Your task to perform on an android device: install app "Spotify: Music and Podcasts" Image 0: 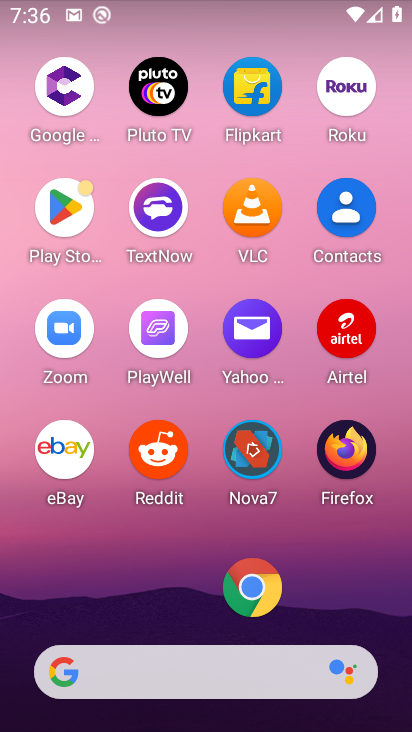
Step 0: click (84, 239)
Your task to perform on an android device: install app "Spotify: Music and Podcasts" Image 1: 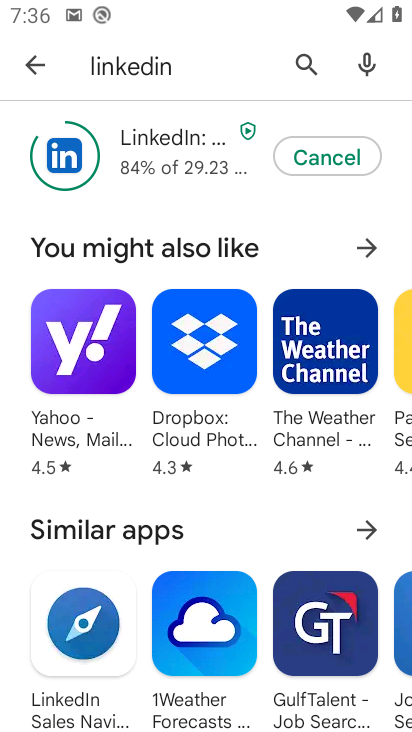
Step 1: click (300, 83)
Your task to perform on an android device: install app "Spotify: Music and Podcasts" Image 2: 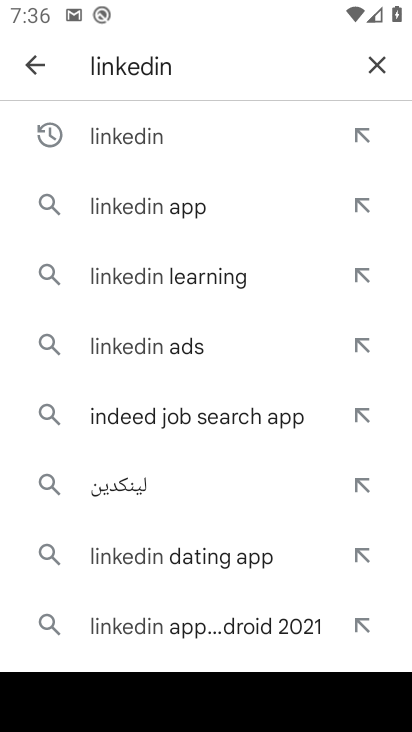
Step 2: click (368, 68)
Your task to perform on an android device: install app "Spotify: Music and Podcasts" Image 3: 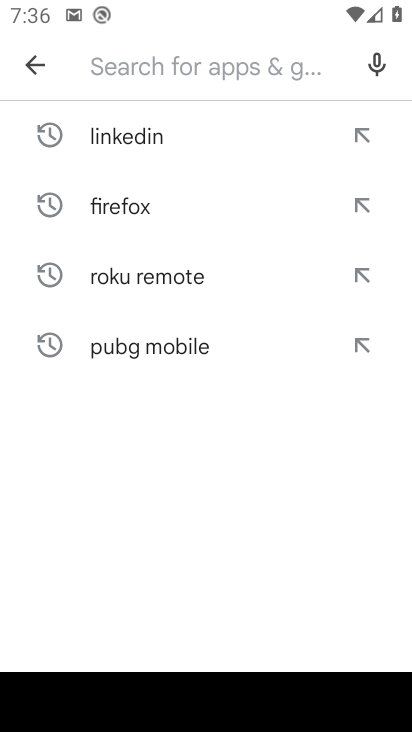
Step 3: type "spotify"
Your task to perform on an android device: install app "Spotify: Music and Podcasts" Image 4: 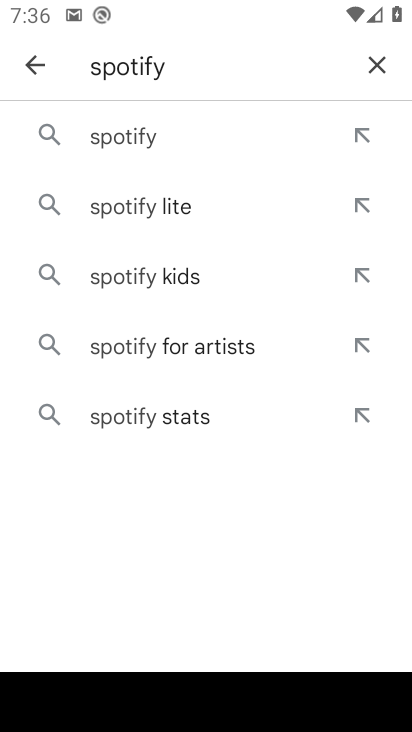
Step 4: click (179, 147)
Your task to perform on an android device: install app "Spotify: Music and Podcasts" Image 5: 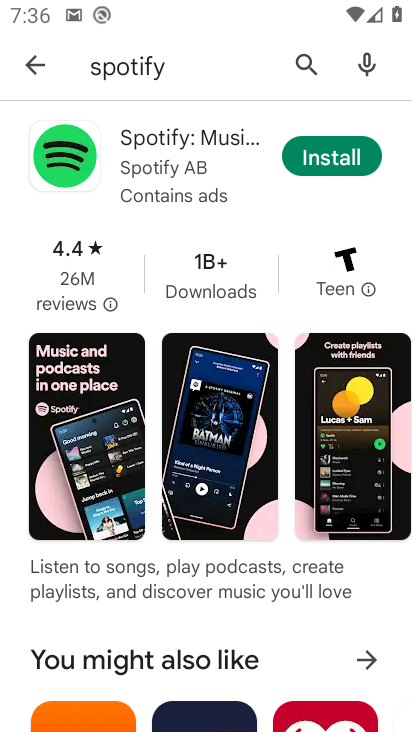
Step 5: click (320, 157)
Your task to perform on an android device: install app "Spotify: Music and Podcasts" Image 6: 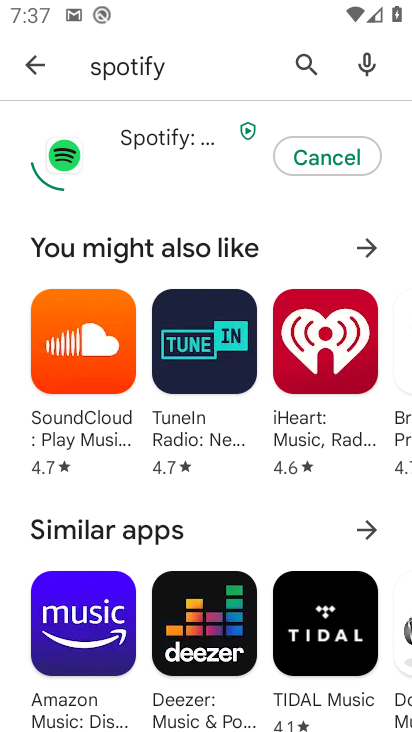
Step 6: task complete